Your task to perform on an android device: Turn off the flashlight Image 0: 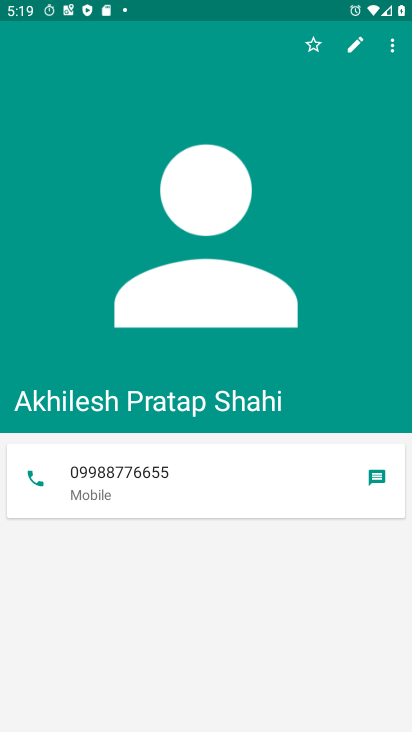
Step 0: press home button
Your task to perform on an android device: Turn off the flashlight Image 1: 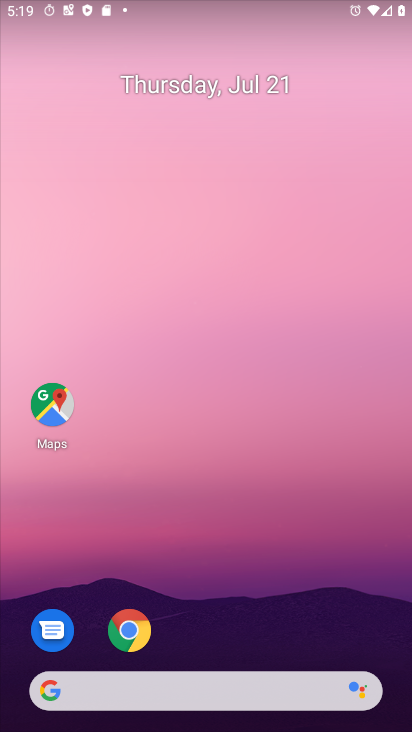
Step 1: drag from (178, 691) to (204, 159)
Your task to perform on an android device: Turn off the flashlight Image 2: 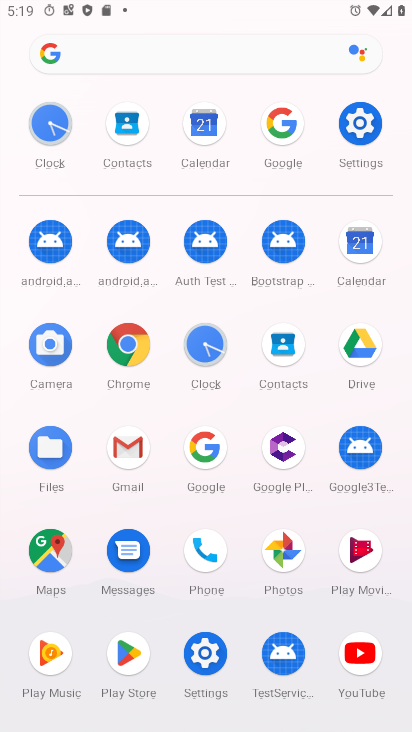
Step 2: click (360, 120)
Your task to perform on an android device: Turn off the flashlight Image 3: 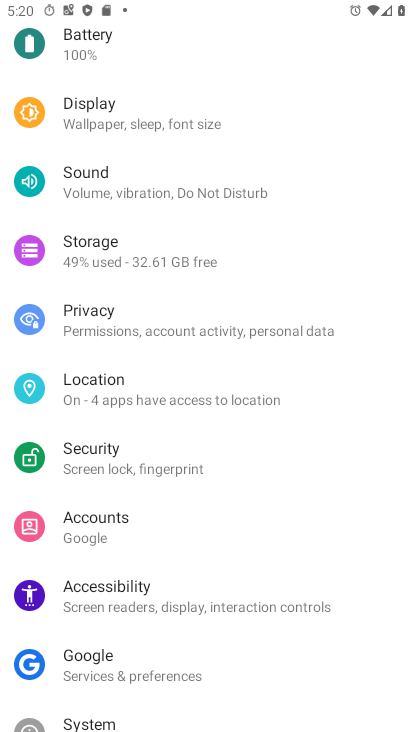
Step 3: drag from (151, 542) to (178, 449)
Your task to perform on an android device: Turn off the flashlight Image 4: 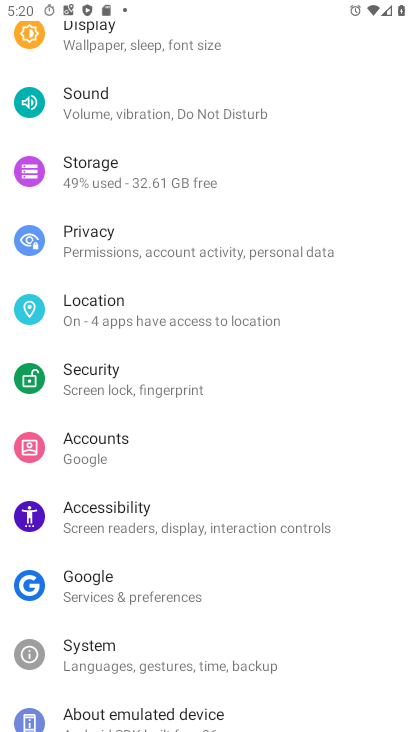
Step 4: drag from (203, 200) to (196, 317)
Your task to perform on an android device: Turn off the flashlight Image 5: 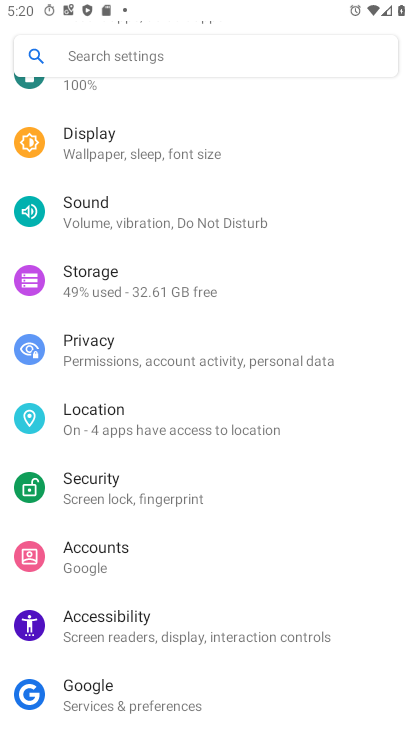
Step 5: click (163, 152)
Your task to perform on an android device: Turn off the flashlight Image 6: 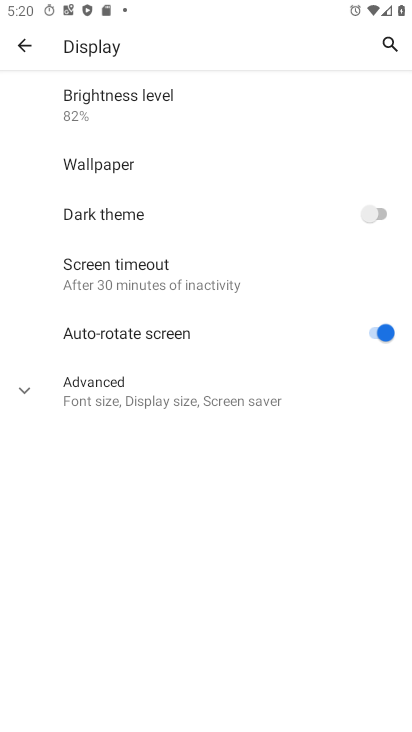
Step 6: click (390, 44)
Your task to perform on an android device: Turn off the flashlight Image 7: 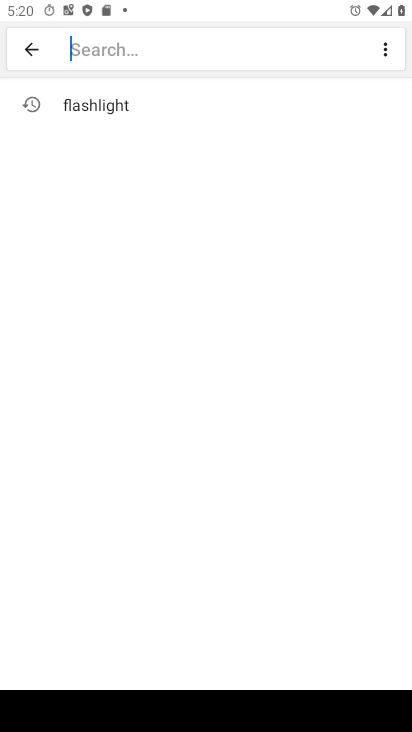
Step 7: click (100, 98)
Your task to perform on an android device: Turn off the flashlight Image 8: 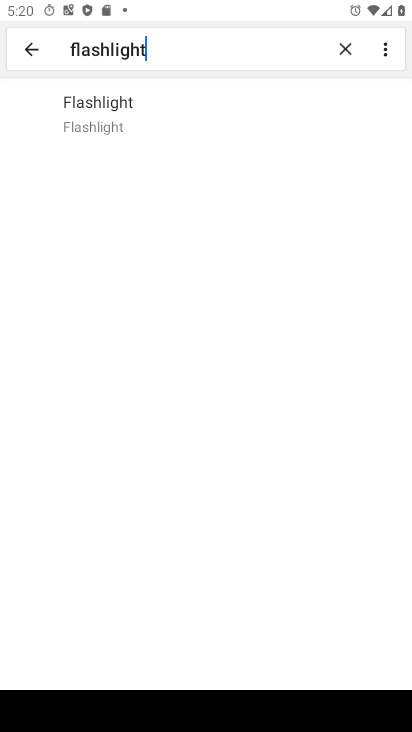
Step 8: click (100, 98)
Your task to perform on an android device: Turn off the flashlight Image 9: 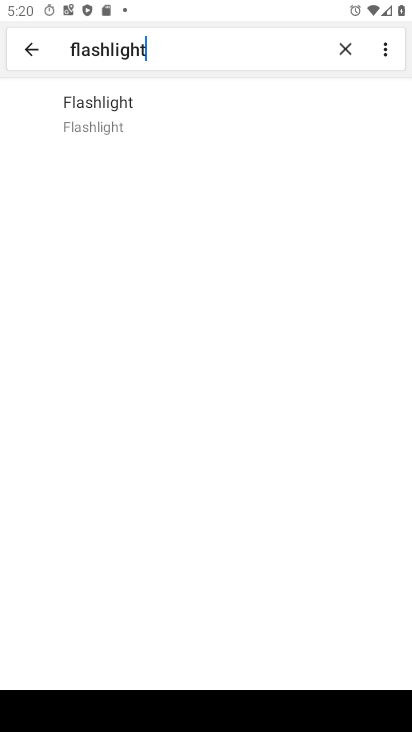
Step 9: click (100, 98)
Your task to perform on an android device: Turn off the flashlight Image 10: 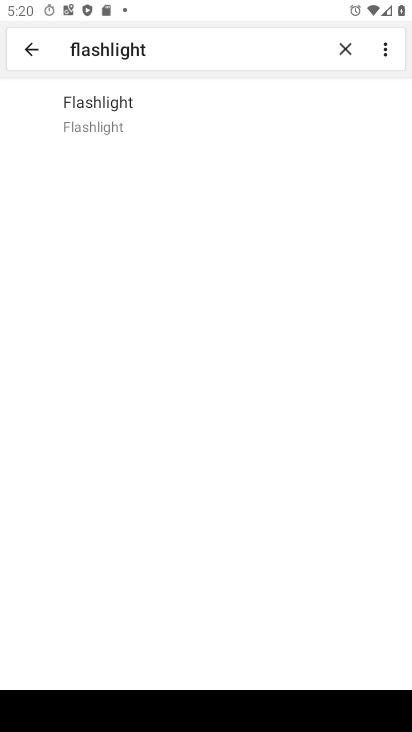
Step 10: task complete